Your task to perform on an android device: find snoozed emails in the gmail app Image 0: 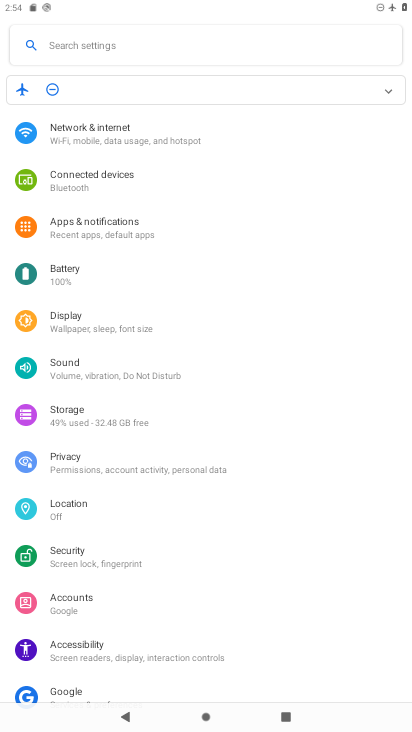
Step 0: press home button
Your task to perform on an android device: find snoozed emails in the gmail app Image 1: 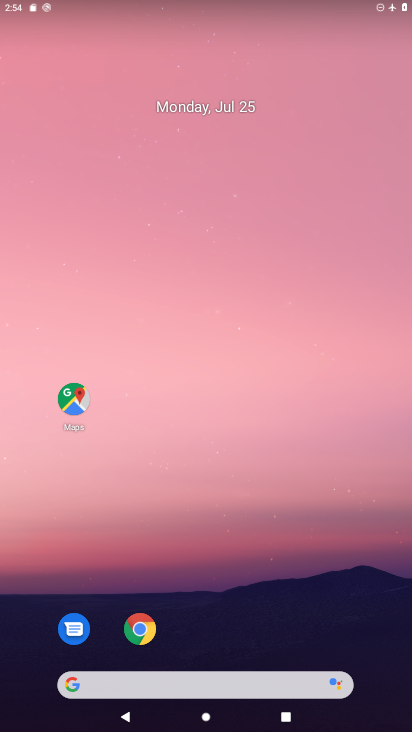
Step 1: drag from (228, 612) to (320, 61)
Your task to perform on an android device: find snoozed emails in the gmail app Image 2: 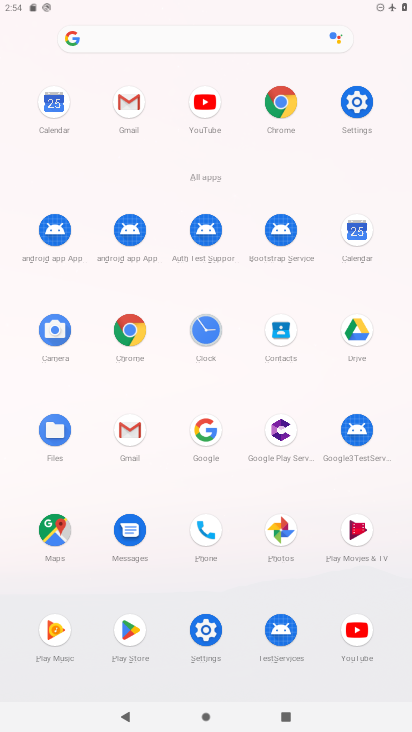
Step 2: click (130, 416)
Your task to perform on an android device: find snoozed emails in the gmail app Image 3: 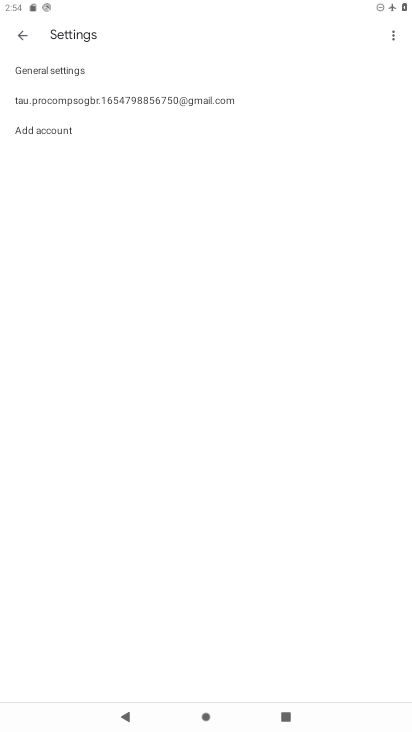
Step 3: click (29, 28)
Your task to perform on an android device: find snoozed emails in the gmail app Image 4: 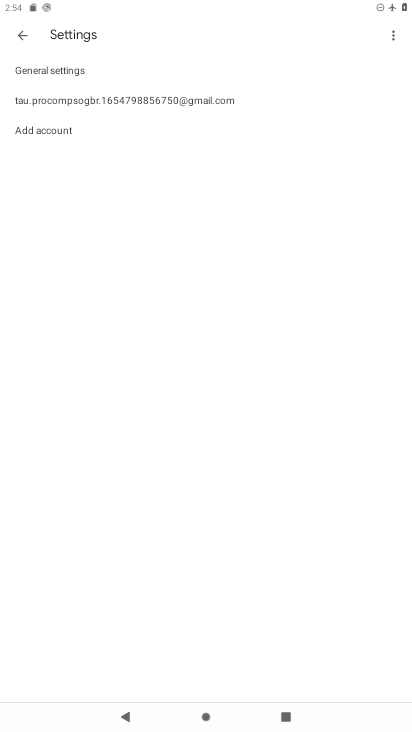
Step 4: click (26, 31)
Your task to perform on an android device: find snoozed emails in the gmail app Image 5: 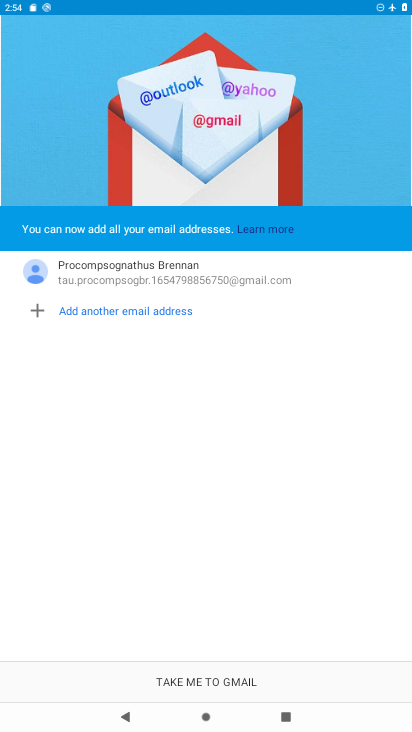
Step 5: press back button
Your task to perform on an android device: find snoozed emails in the gmail app Image 6: 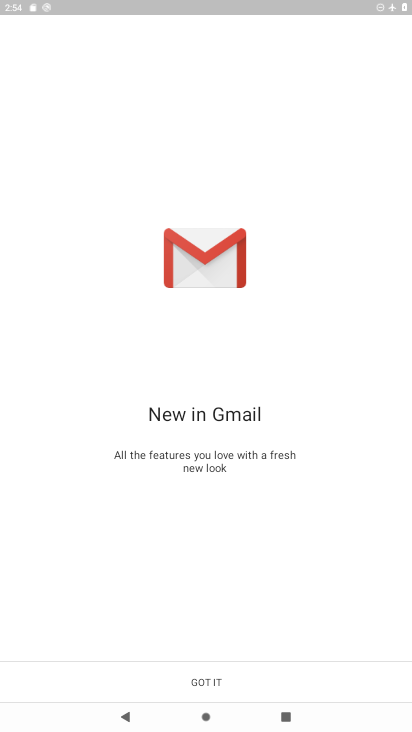
Step 6: click (212, 680)
Your task to perform on an android device: find snoozed emails in the gmail app Image 7: 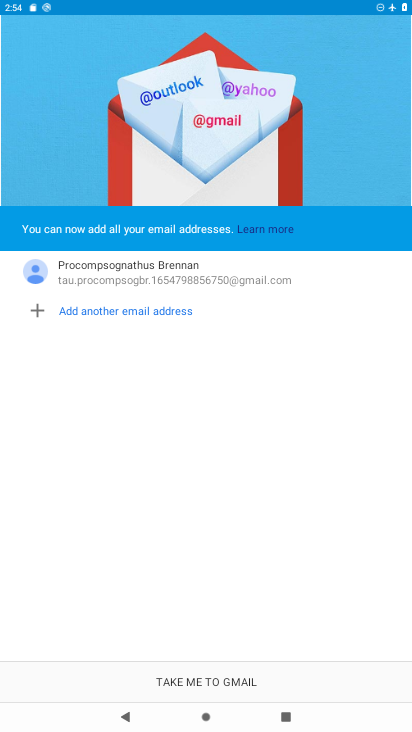
Step 7: click (212, 680)
Your task to perform on an android device: find snoozed emails in the gmail app Image 8: 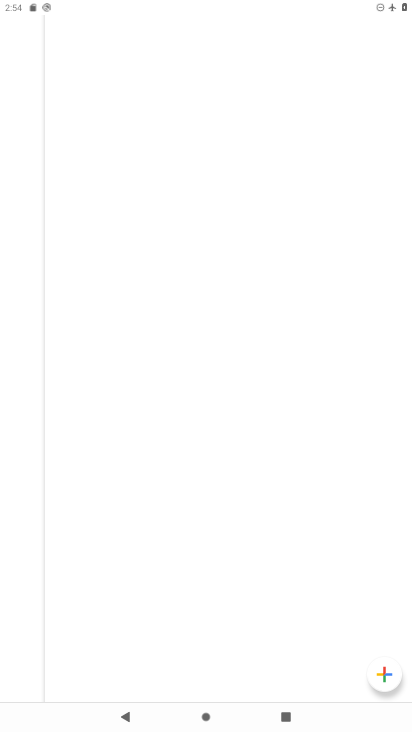
Step 8: click (212, 680)
Your task to perform on an android device: find snoozed emails in the gmail app Image 9: 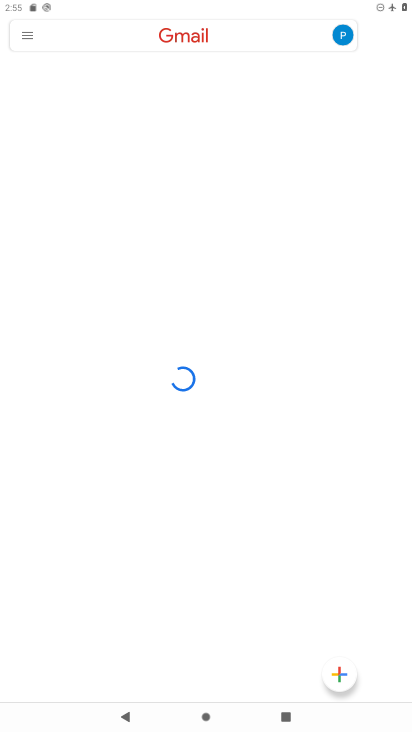
Step 9: click (23, 36)
Your task to perform on an android device: find snoozed emails in the gmail app Image 10: 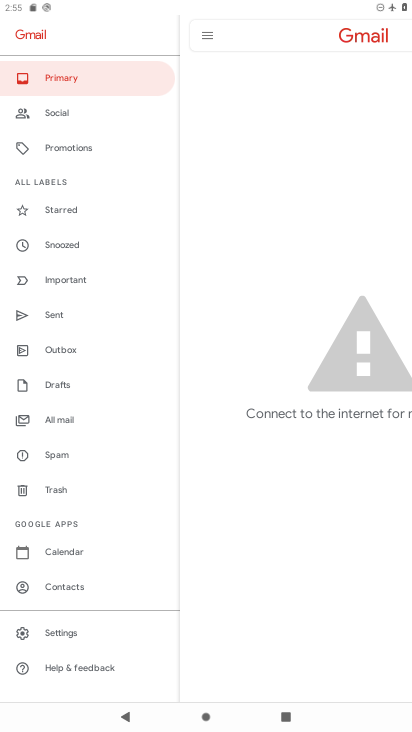
Step 10: drag from (65, 176) to (352, 299)
Your task to perform on an android device: find snoozed emails in the gmail app Image 11: 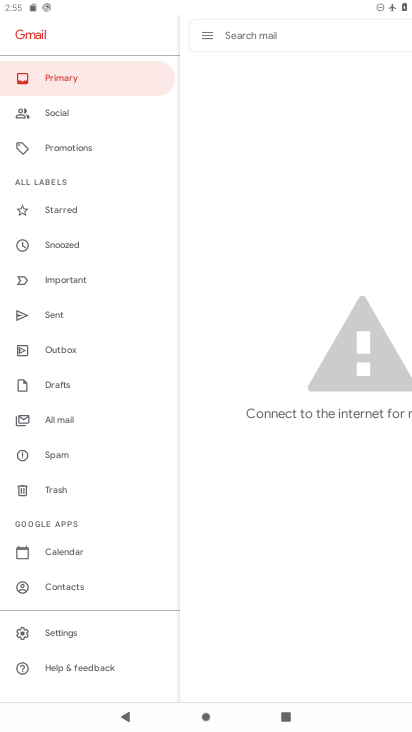
Step 11: click (58, 238)
Your task to perform on an android device: find snoozed emails in the gmail app Image 12: 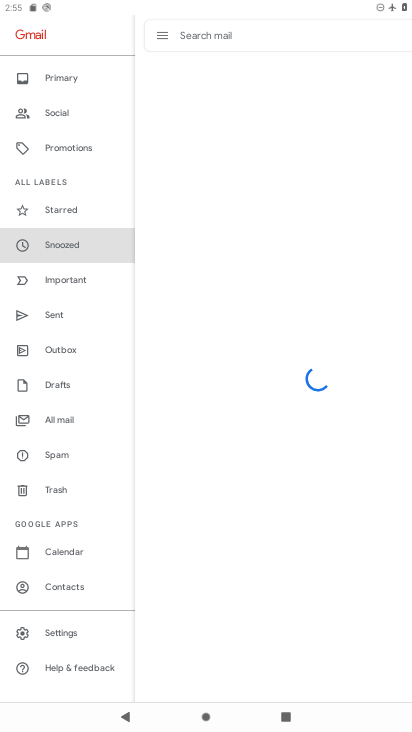
Step 12: task complete